Your task to perform on an android device: Open the Play Movies app and select the watchlist tab. Image 0: 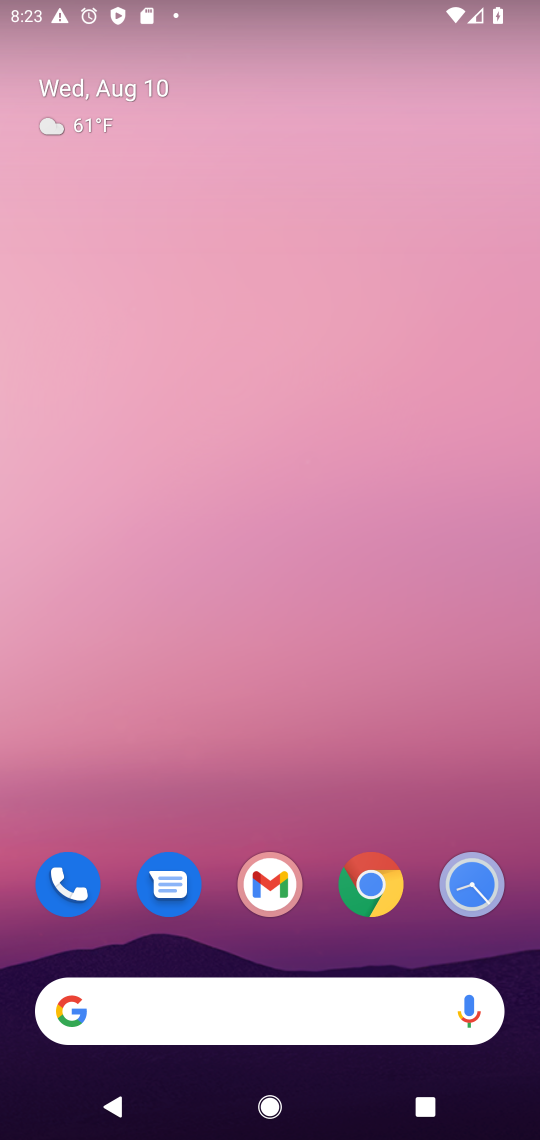
Step 0: drag from (103, 711) to (204, 389)
Your task to perform on an android device: Open the Play Movies app and select the watchlist tab. Image 1: 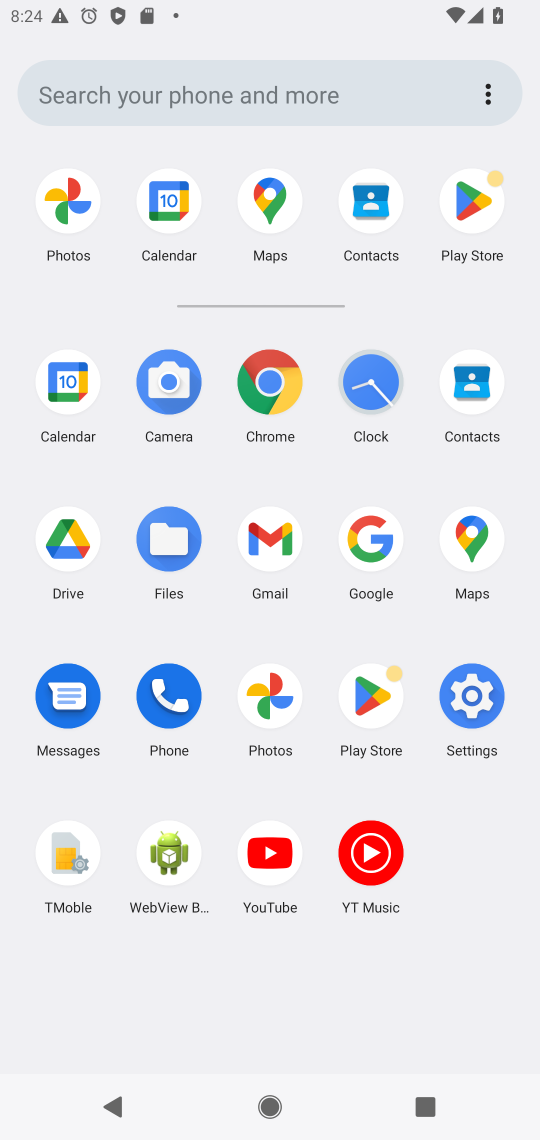
Step 1: task complete